Your task to perform on an android device: toggle data saver in the chrome app Image 0: 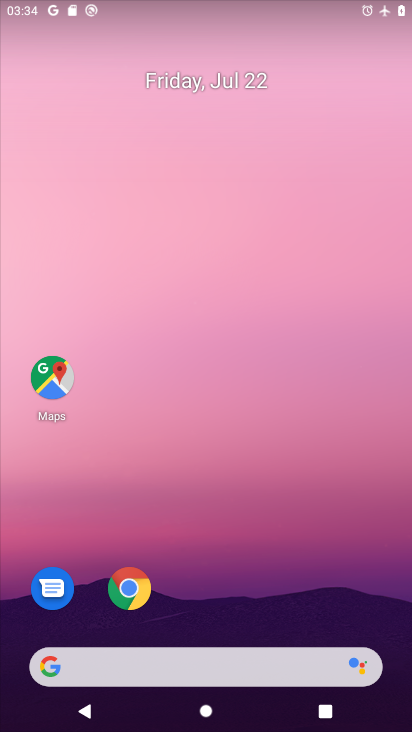
Step 0: click (229, 23)
Your task to perform on an android device: toggle data saver in the chrome app Image 1: 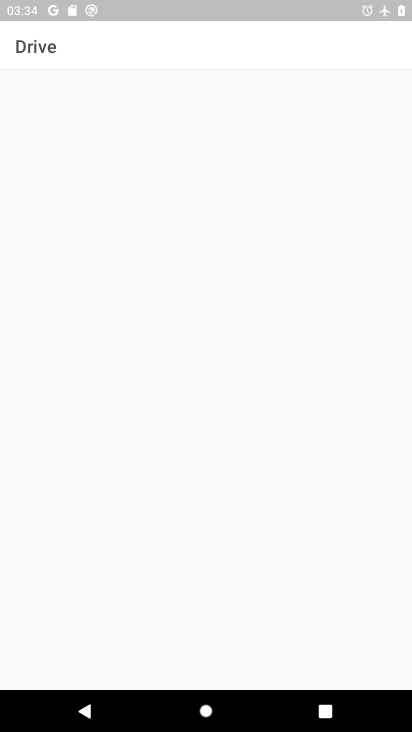
Step 1: press home button
Your task to perform on an android device: toggle data saver in the chrome app Image 2: 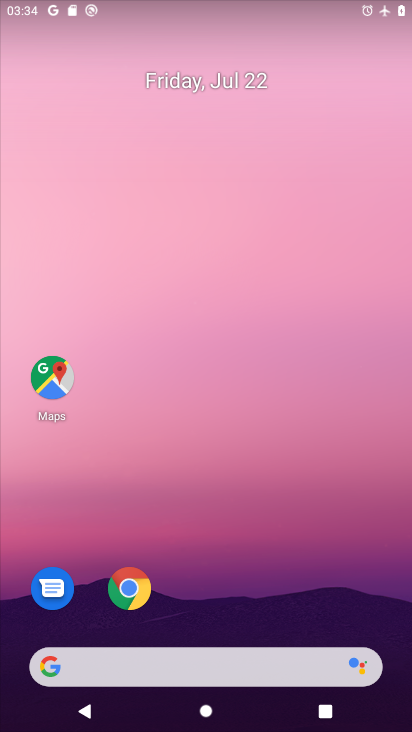
Step 2: drag from (292, 490) to (319, 107)
Your task to perform on an android device: toggle data saver in the chrome app Image 3: 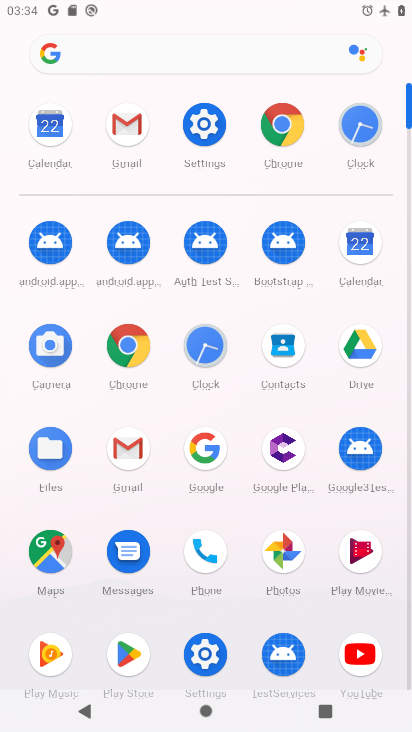
Step 3: click (124, 348)
Your task to perform on an android device: toggle data saver in the chrome app Image 4: 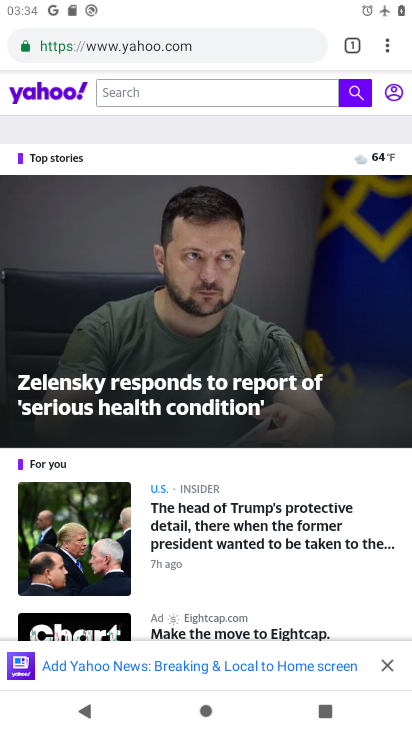
Step 4: drag from (390, 46) to (245, 503)
Your task to perform on an android device: toggle data saver in the chrome app Image 5: 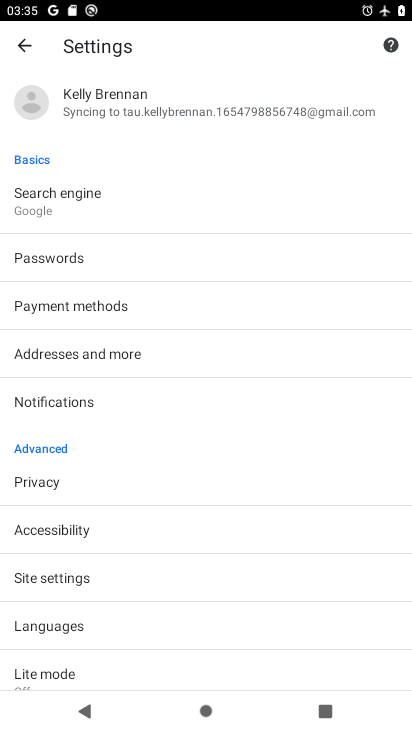
Step 5: drag from (210, 566) to (113, 228)
Your task to perform on an android device: toggle data saver in the chrome app Image 6: 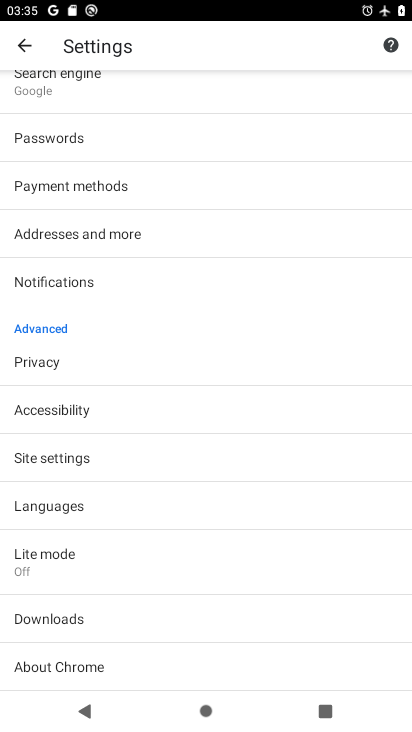
Step 6: click (82, 553)
Your task to perform on an android device: toggle data saver in the chrome app Image 7: 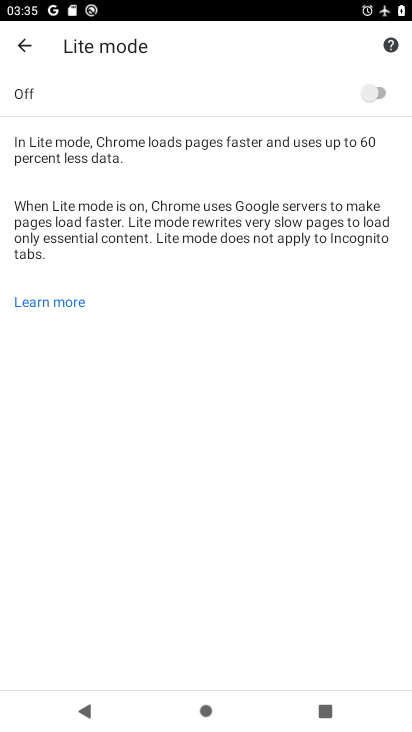
Step 7: click (339, 83)
Your task to perform on an android device: toggle data saver in the chrome app Image 8: 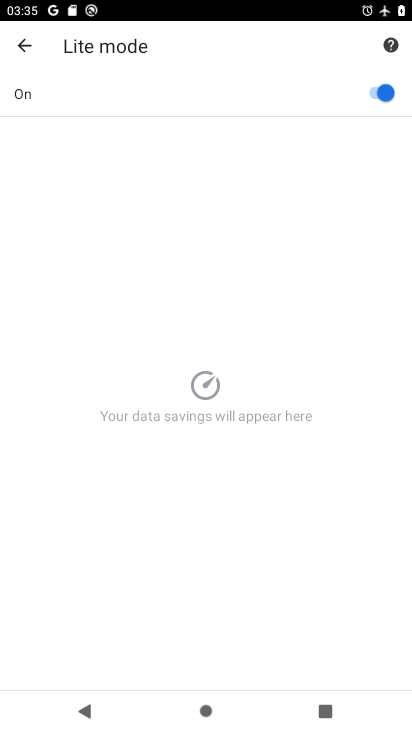
Step 8: task complete